Your task to perform on an android device: open app "DoorDash - Dasher" Image 0: 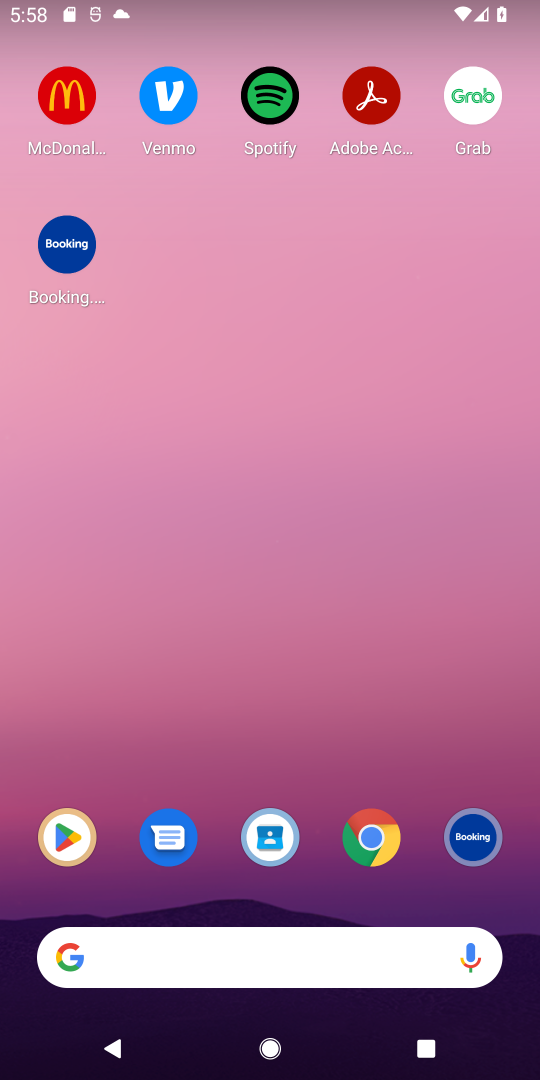
Step 0: click (54, 829)
Your task to perform on an android device: open app "DoorDash - Dasher" Image 1: 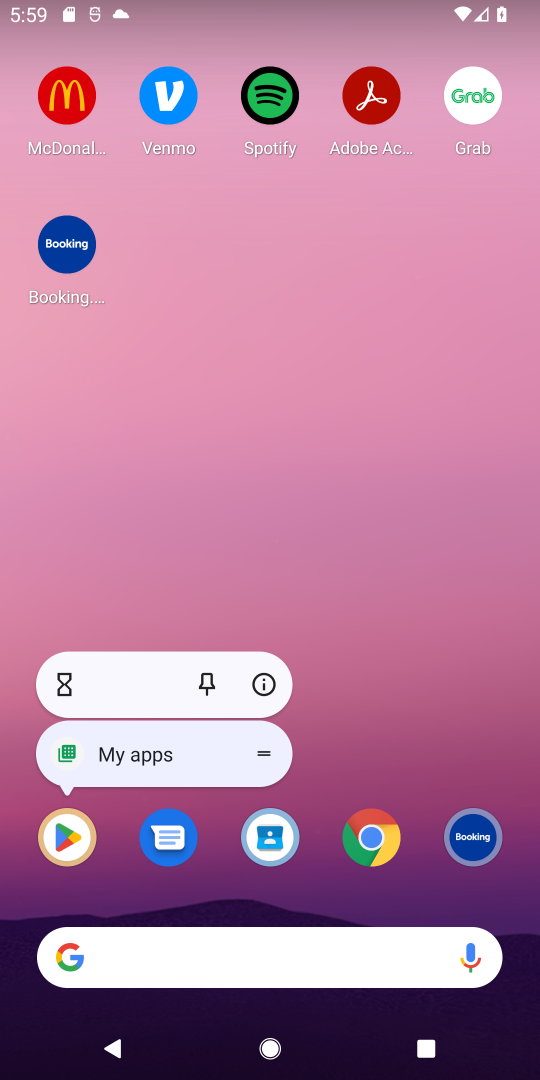
Step 1: click (57, 843)
Your task to perform on an android device: open app "DoorDash - Dasher" Image 2: 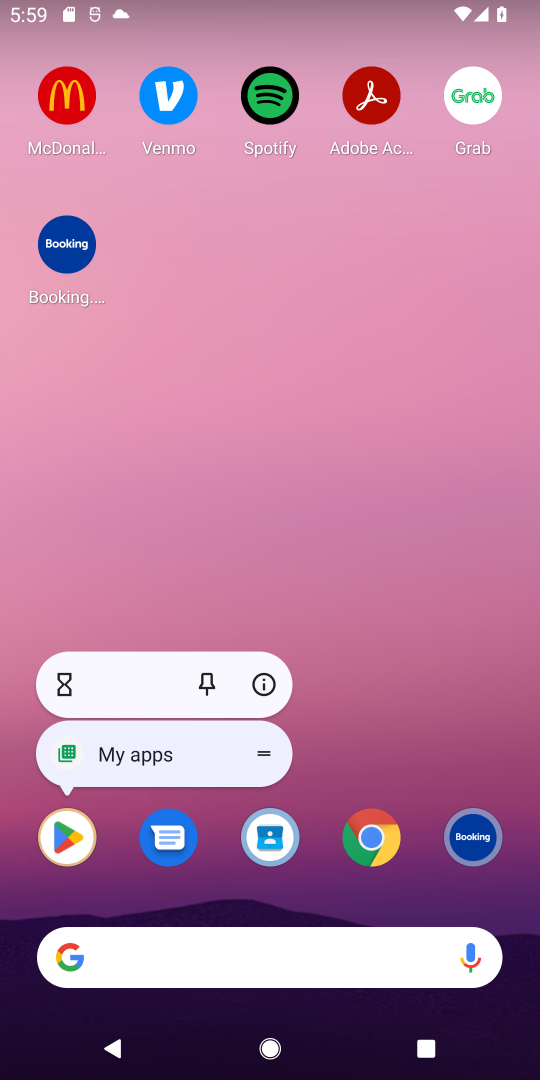
Step 2: click (57, 843)
Your task to perform on an android device: open app "DoorDash - Dasher" Image 3: 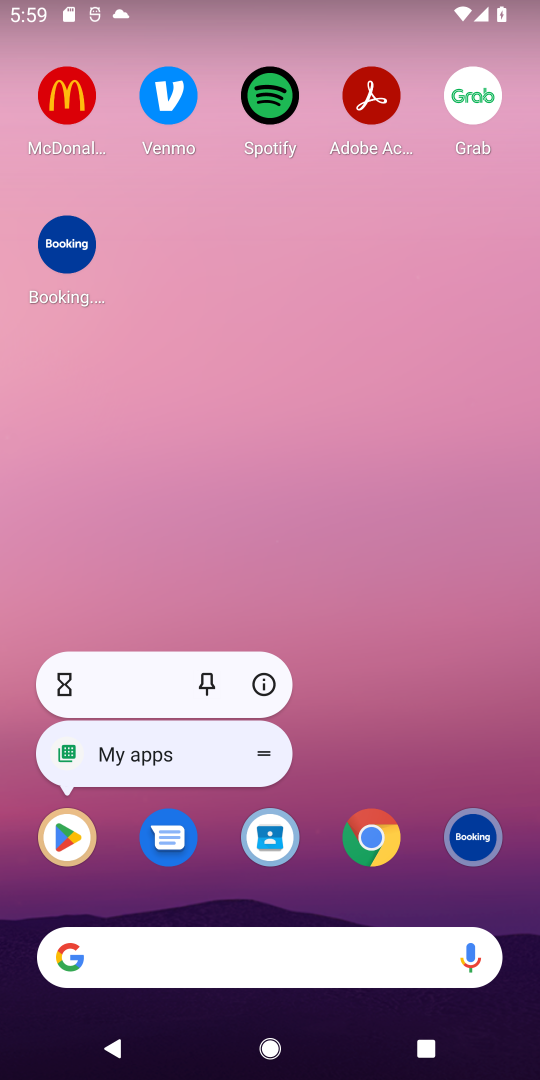
Step 3: click (57, 831)
Your task to perform on an android device: open app "DoorDash - Dasher" Image 4: 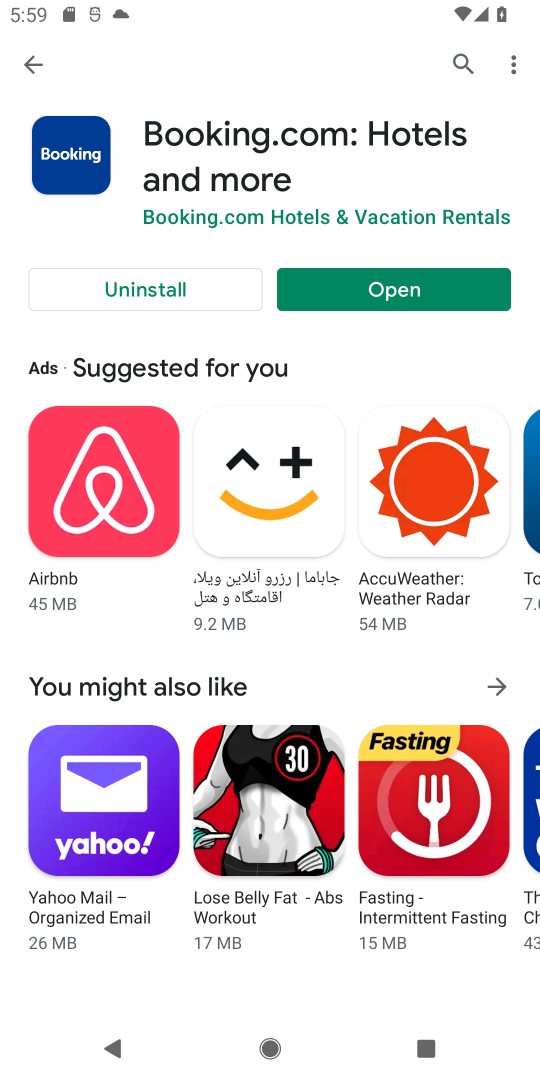
Step 4: click (459, 60)
Your task to perform on an android device: open app "DoorDash - Dasher" Image 5: 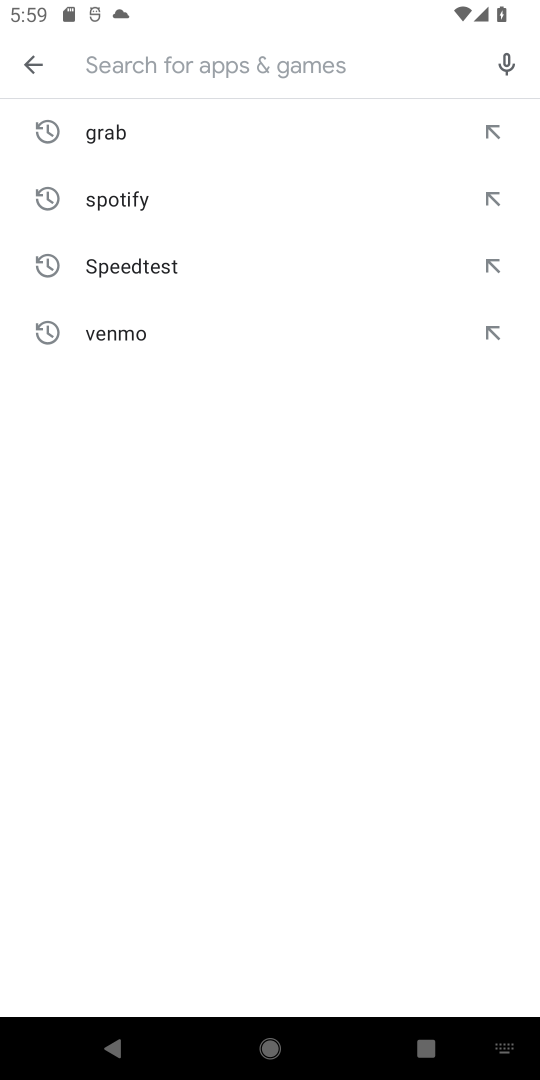
Step 5: type "DoorDash - Dasher"
Your task to perform on an android device: open app "DoorDash - Dasher" Image 6: 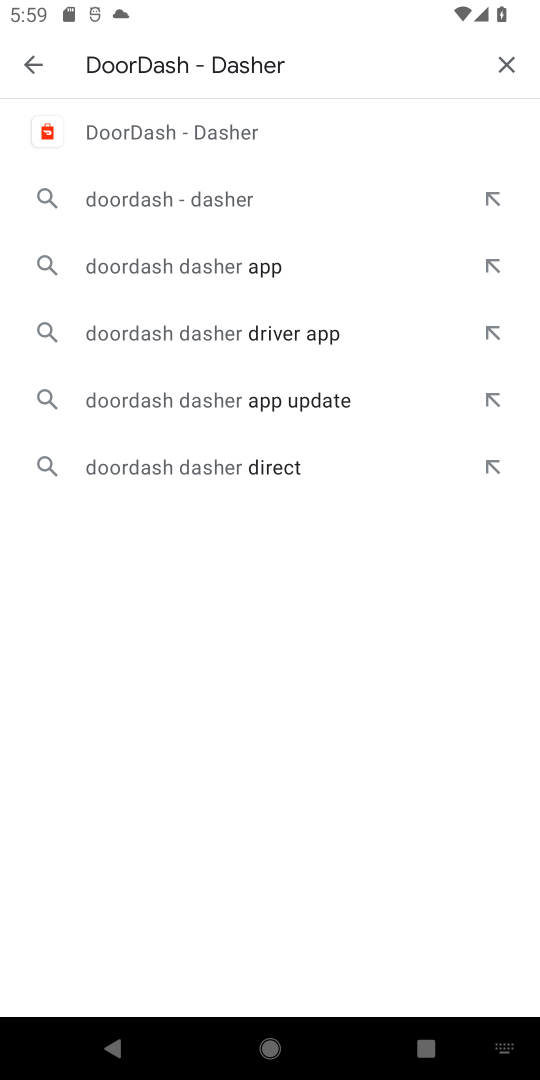
Step 6: click (288, 118)
Your task to perform on an android device: open app "DoorDash - Dasher" Image 7: 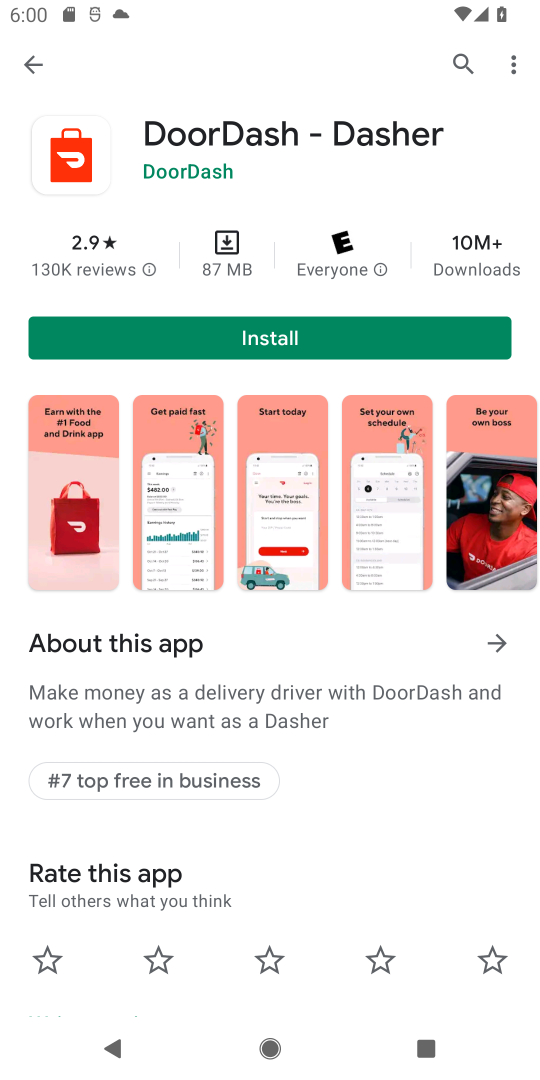
Step 7: task complete